Your task to perform on an android device: Open maps Image 0: 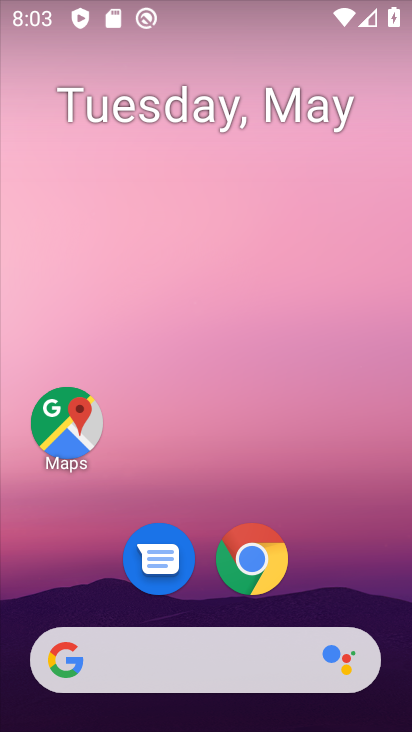
Step 0: click (77, 411)
Your task to perform on an android device: Open maps Image 1: 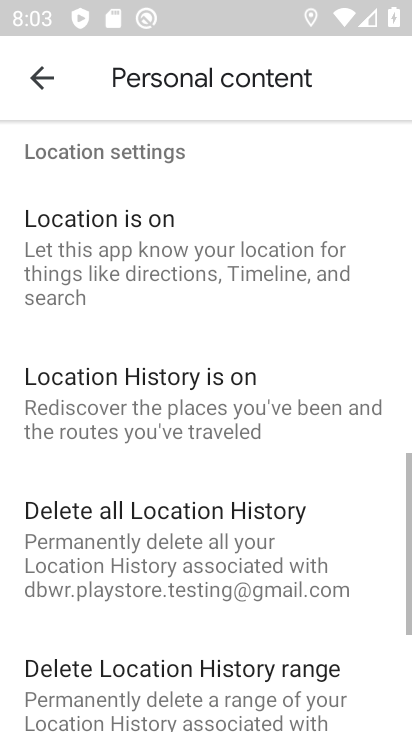
Step 1: click (40, 85)
Your task to perform on an android device: Open maps Image 2: 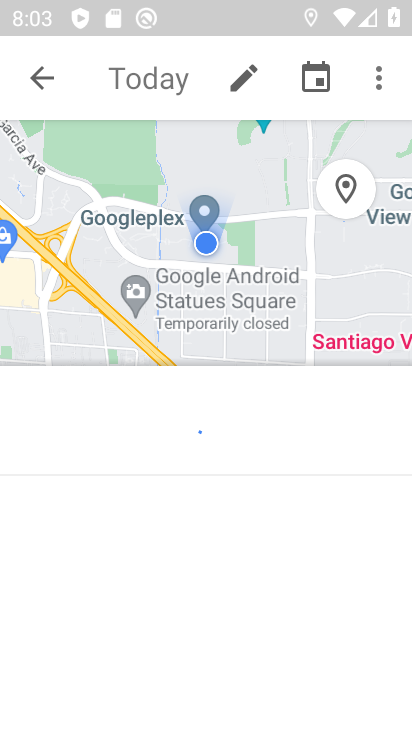
Step 2: task complete